Your task to perform on an android device: Open Youtube and go to "Your channel" Image 0: 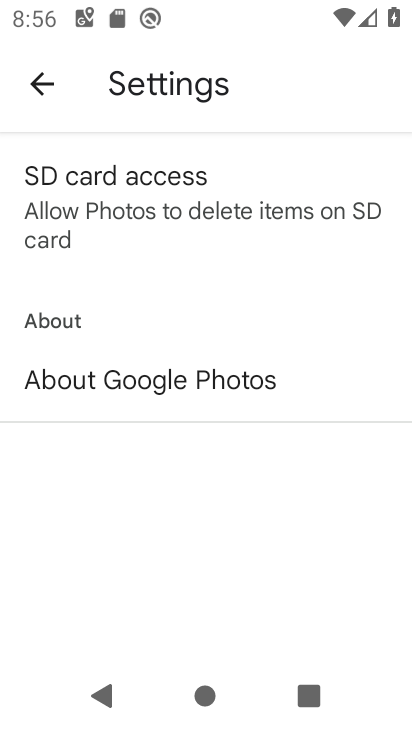
Step 0: press home button
Your task to perform on an android device: Open Youtube and go to "Your channel" Image 1: 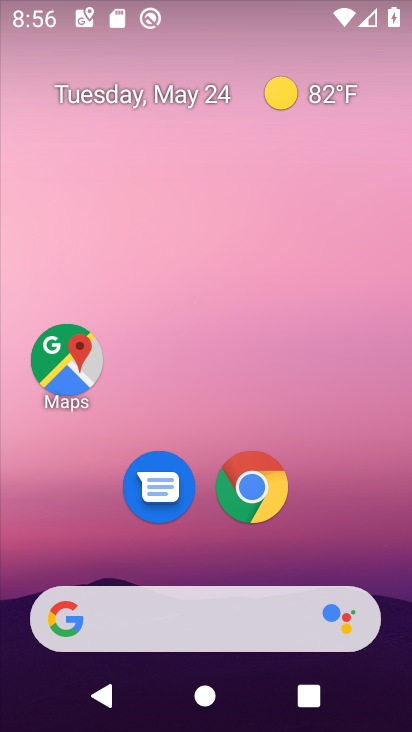
Step 1: drag from (359, 514) to (328, 119)
Your task to perform on an android device: Open Youtube and go to "Your channel" Image 2: 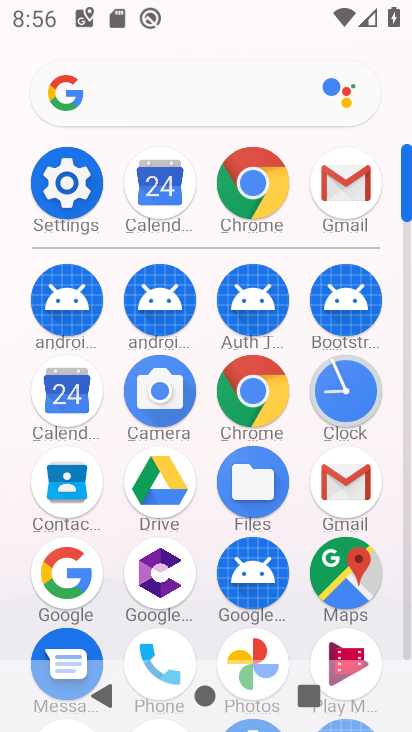
Step 2: drag from (196, 600) to (215, 306)
Your task to perform on an android device: Open Youtube and go to "Your channel" Image 3: 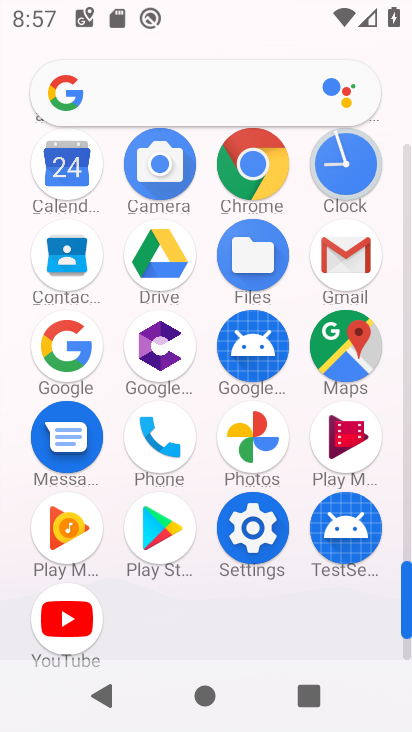
Step 3: click (74, 629)
Your task to perform on an android device: Open Youtube and go to "Your channel" Image 4: 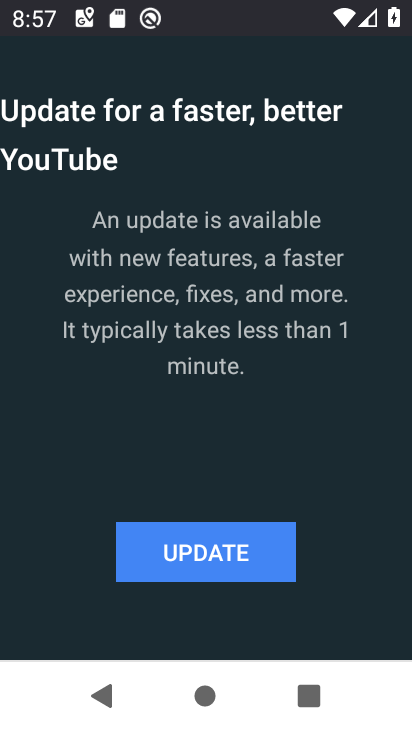
Step 4: click (242, 553)
Your task to perform on an android device: Open Youtube and go to "Your channel" Image 5: 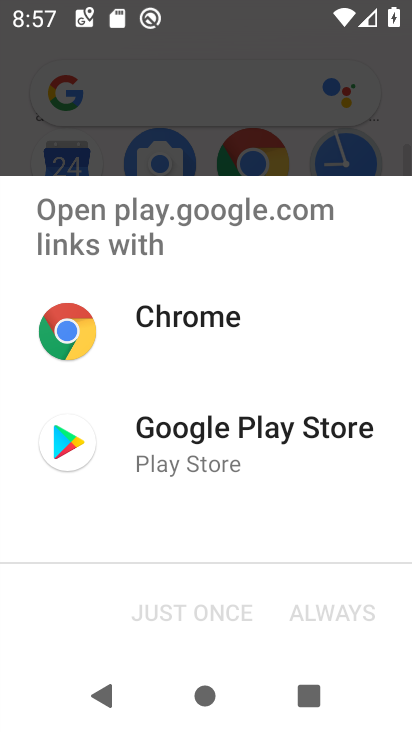
Step 5: click (187, 459)
Your task to perform on an android device: Open Youtube and go to "Your channel" Image 6: 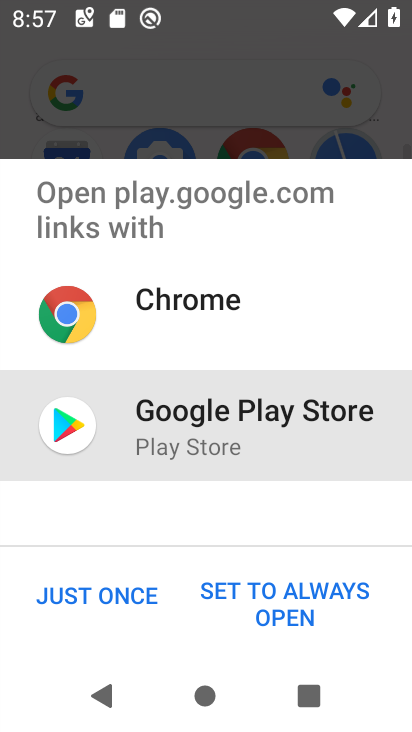
Step 6: click (114, 607)
Your task to perform on an android device: Open Youtube and go to "Your channel" Image 7: 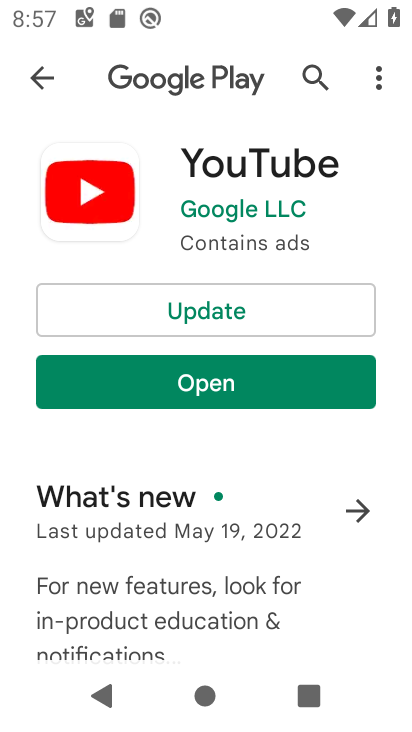
Step 7: click (280, 315)
Your task to perform on an android device: Open Youtube and go to "Your channel" Image 8: 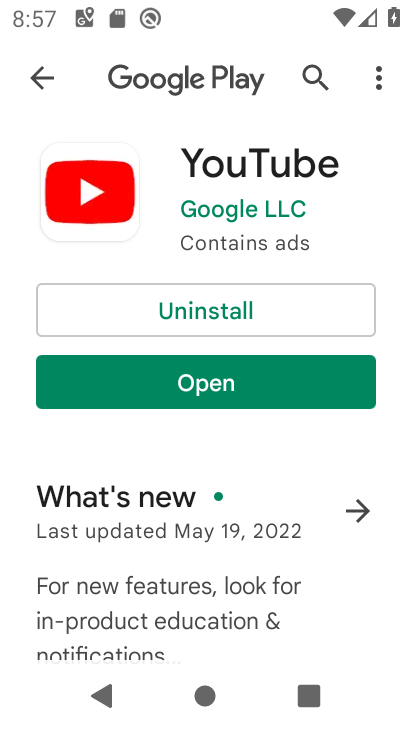
Step 8: click (269, 377)
Your task to perform on an android device: Open Youtube and go to "Your channel" Image 9: 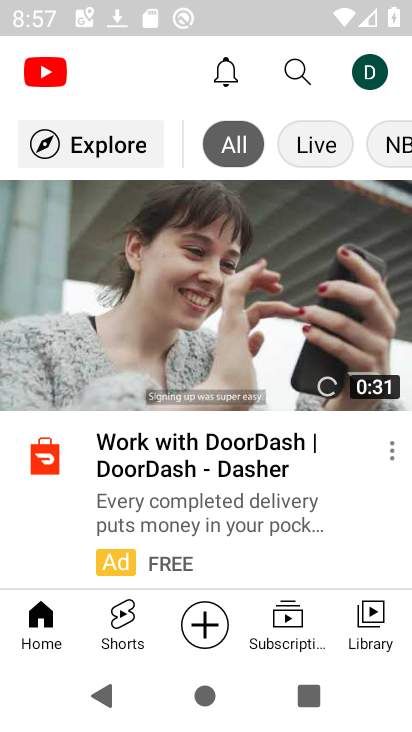
Step 9: click (377, 75)
Your task to perform on an android device: Open Youtube and go to "Your channel" Image 10: 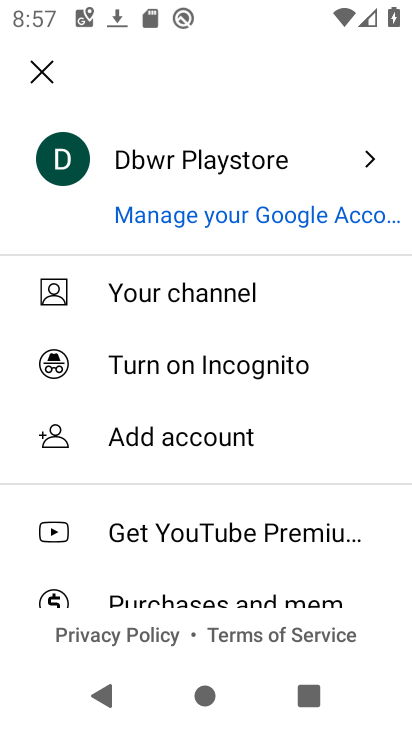
Step 10: click (263, 293)
Your task to perform on an android device: Open Youtube and go to "Your channel" Image 11: 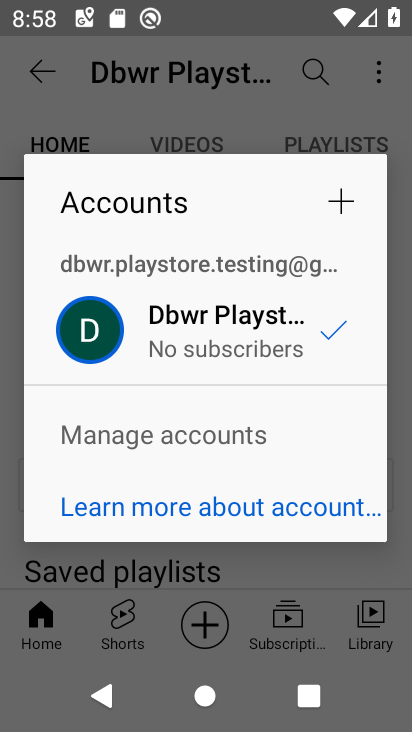
Step 11: task complete